Your task to perform on an android device: When is my next appointment? Image 0: 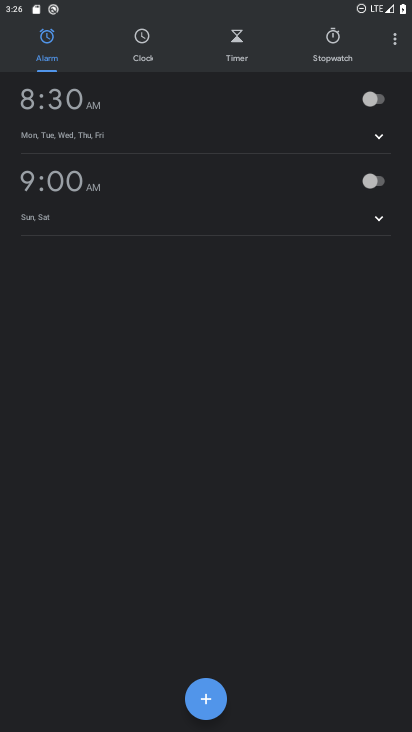
Step 0: press home button
Your task to perform on an android device: When is my next appointment? Image 1: 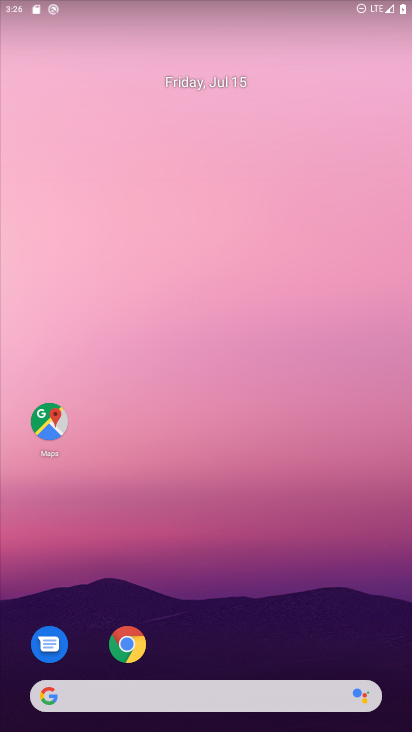
Step 1: drag from (96, 457) to (230, 109)
Your task to perform on an android device: When is my next appointment? Image 2: 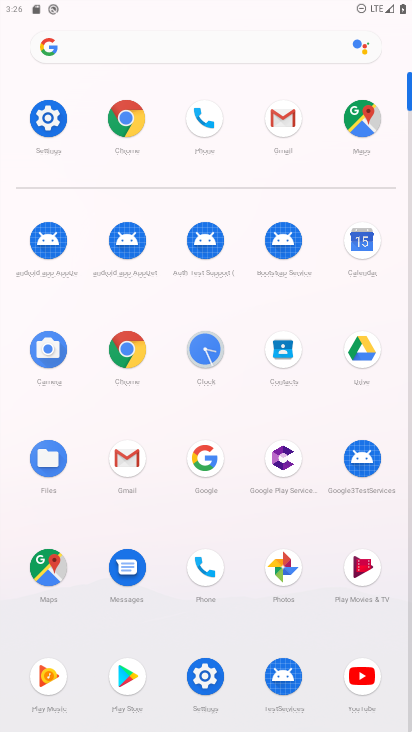
Step 2: click (367, 248)
Your task to perform on an android device: When is my next appointment? Image 3: 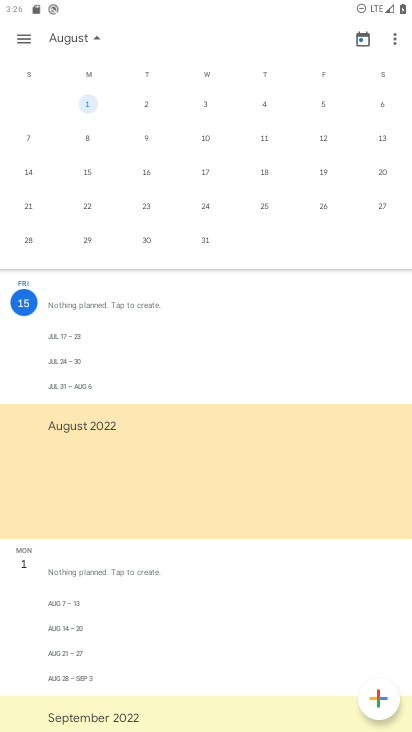
Step 3: task complete